Your task to perform on an android device: Go to Wikipedia Image 0: 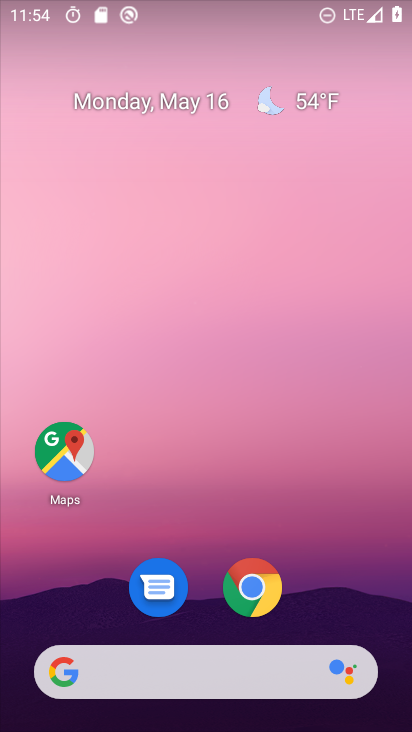
Step 0: drag from (191, 614) to (254, 92)
Your task to perform on an android device: Go to Wikipedia Image 1: 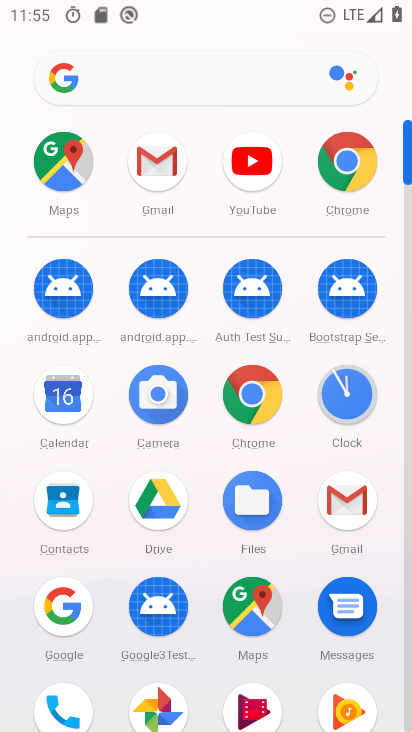
Step 1: click (209, 86)
Your task to perform on an android device: Go to Wikipedia Image 2: 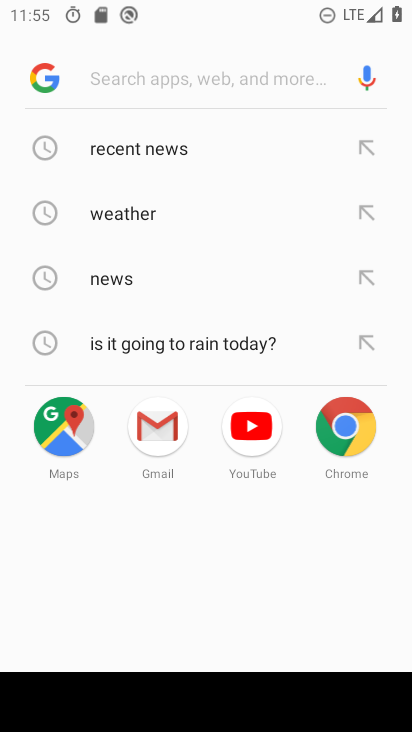
Step 2: press back button
Your task to perform on an android device: Go to Wikipedia Image 3: 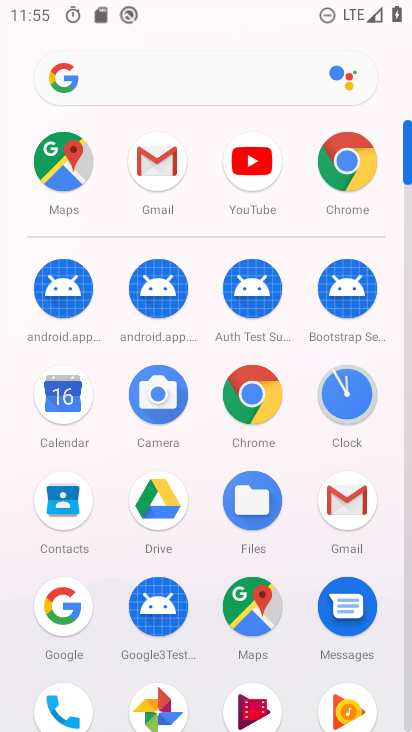
Step 3: click (334, 162)
Your task to perform on an android device: Go to Wikipedia Image 4: 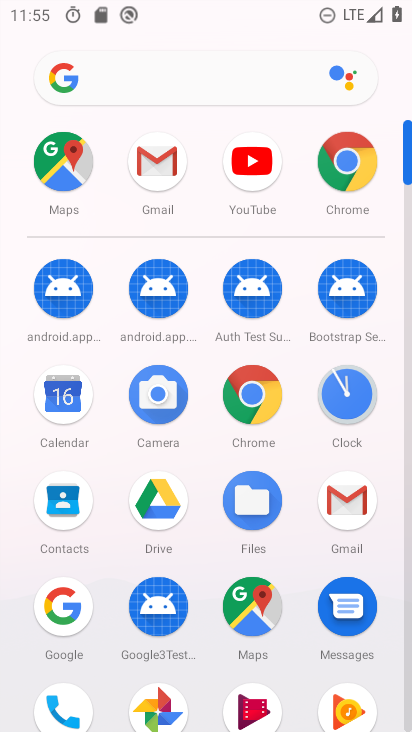
Step 4: click (334, 162)
Your task to perform on an android device: Go to Wikipedia Image 5: 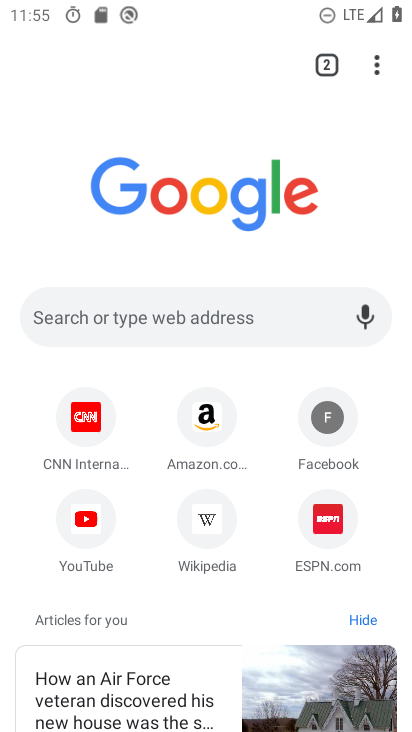
Step 5: click (194, 536)
Your task to perform on an android device: Go to Wikipedia Image 6: 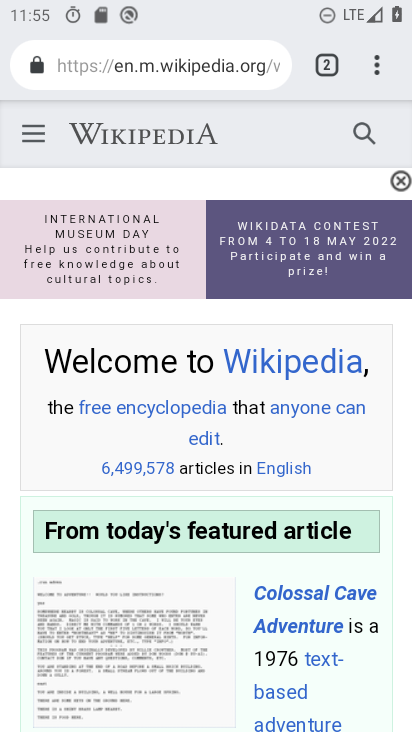
Step 6: task complete